Your task to perform on an android device: open sync settings in chrome Image 0: 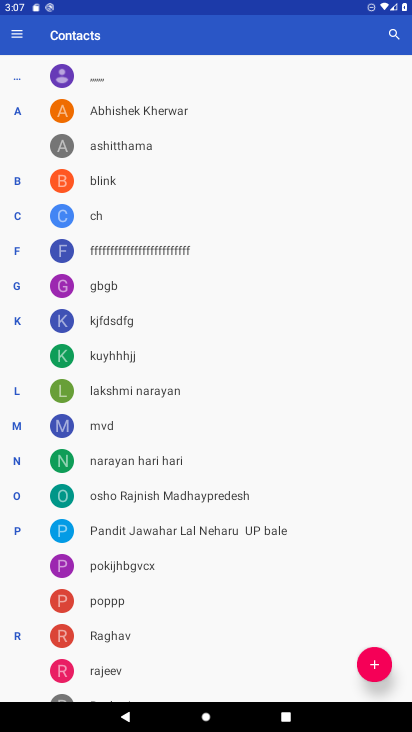
Step 0: press home button
Your task to perform on an android device: open sync settings in chrome Image 1: 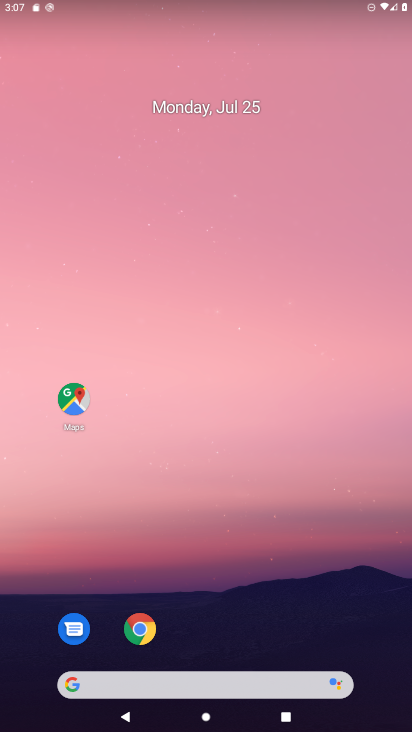
Step 1: click (138, 644)
Your task to perform on an android device: open sync settings in chrome Image 2: 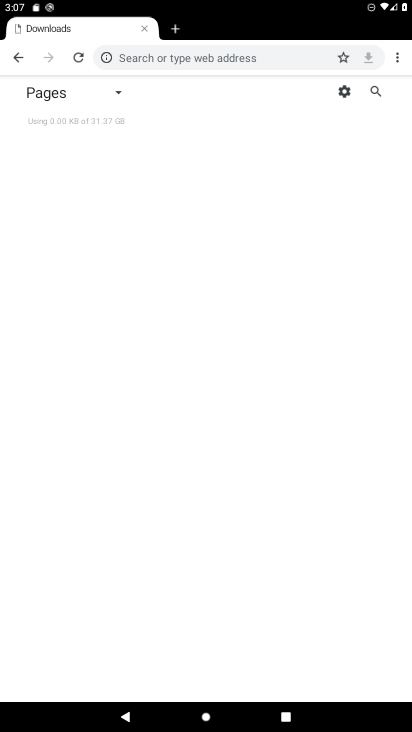
Step 2: click (397, 60)
Your task to perform on an android device: open sync settings in chrome Image 3: 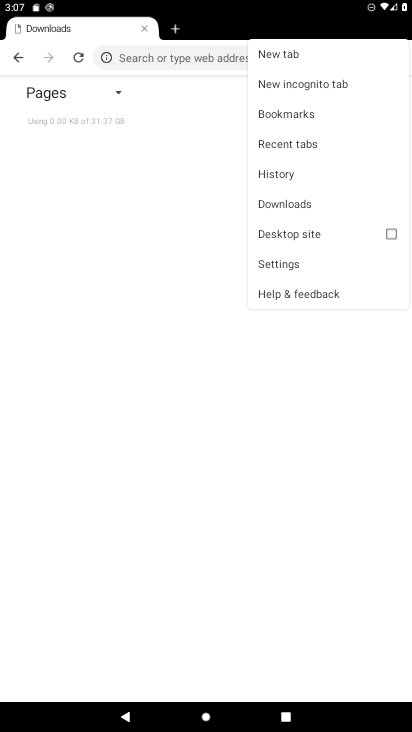
Step 3: click (285, 259)
Your task to perform on an android device: open sync settings in chrome Image 4: 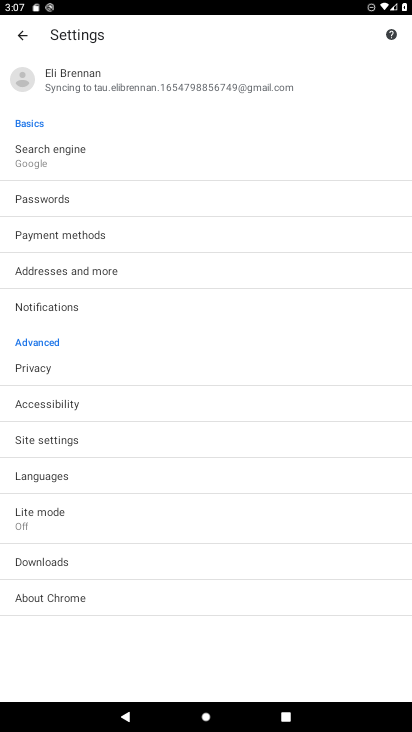
Step 4: click (153, 85)
Your task to perform on an android device: open sync settings in chrome Image 5: 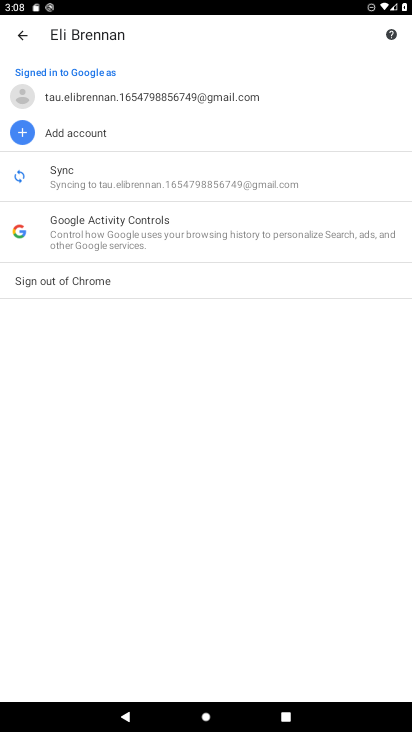
Step 5: click (105, 186)
Your task to perform on an android device: open sync settings in chrome Image 6: 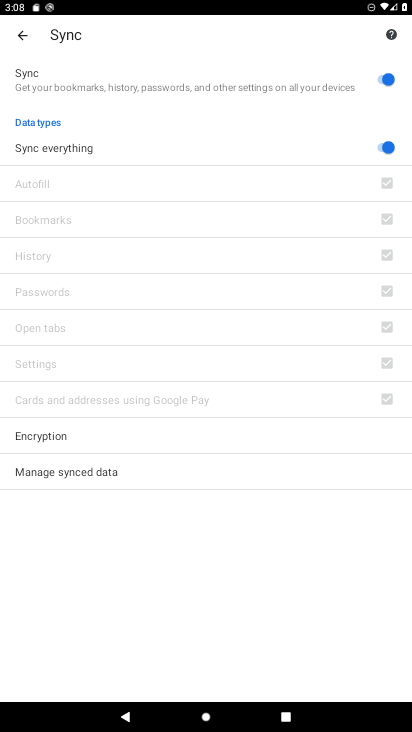
Step 6: task complete